Your task to perform on an android device: uninstall "PlayWell" Image 0: 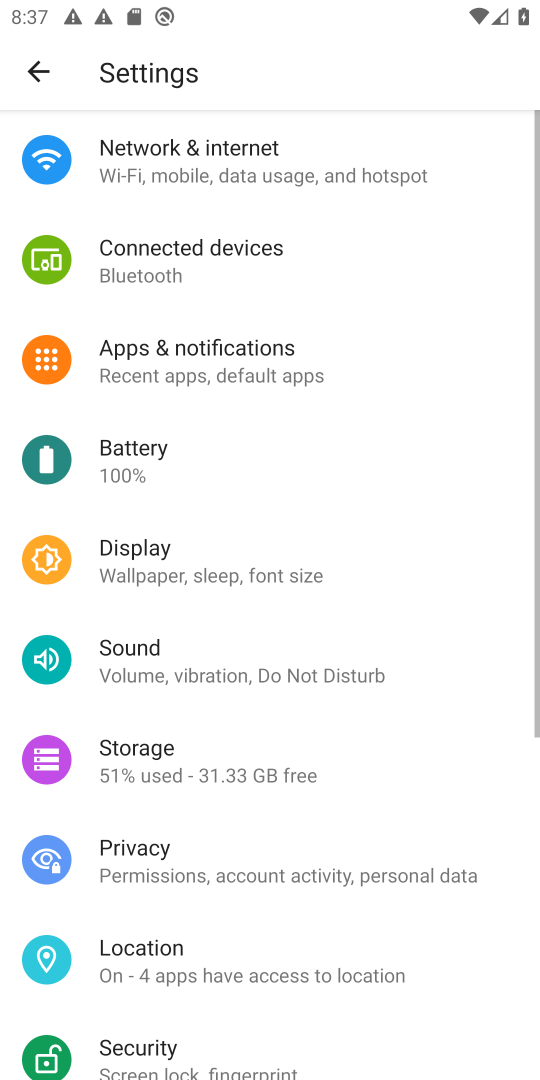
Step 0: press home button
Your task to perform on an android device: uninstall "PlayWell" Image 1: 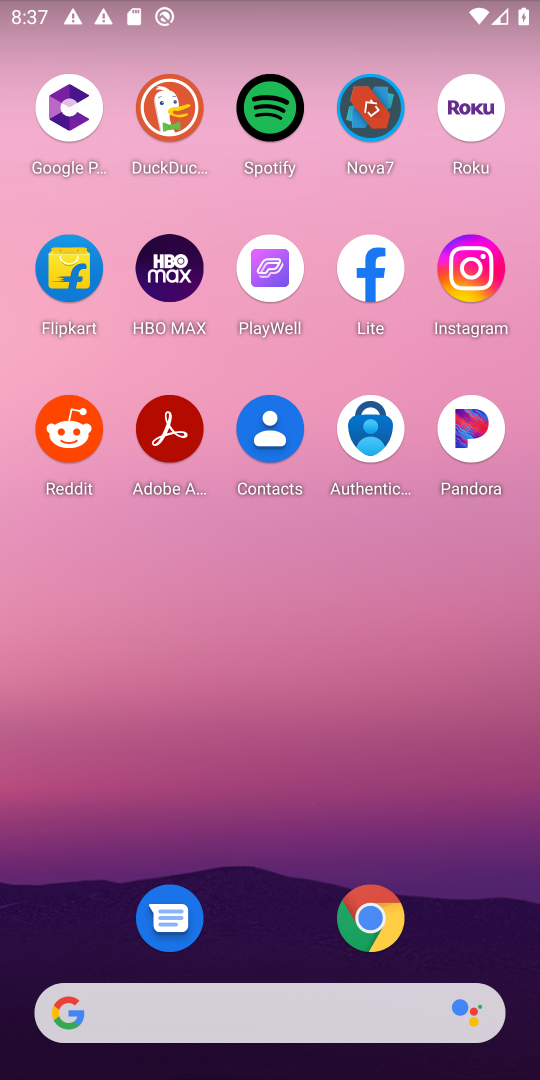
Step 1: press home button
Your task to perform on an android device: uninstall "PlayWell" Image 2: 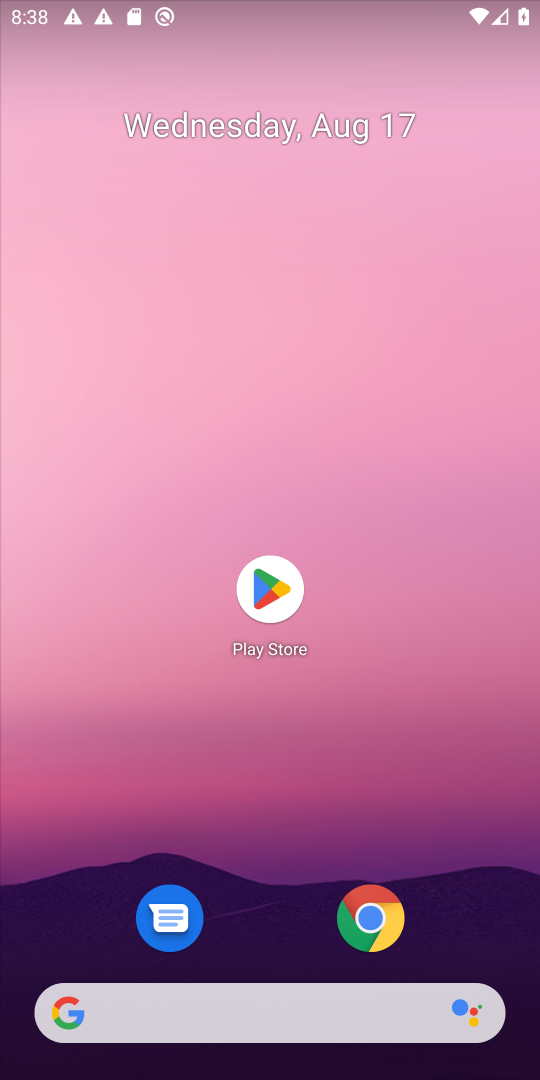
Step 2: click (271, 585)
Your task to perform on an android device: uninstall "PlayWell" Image 3: 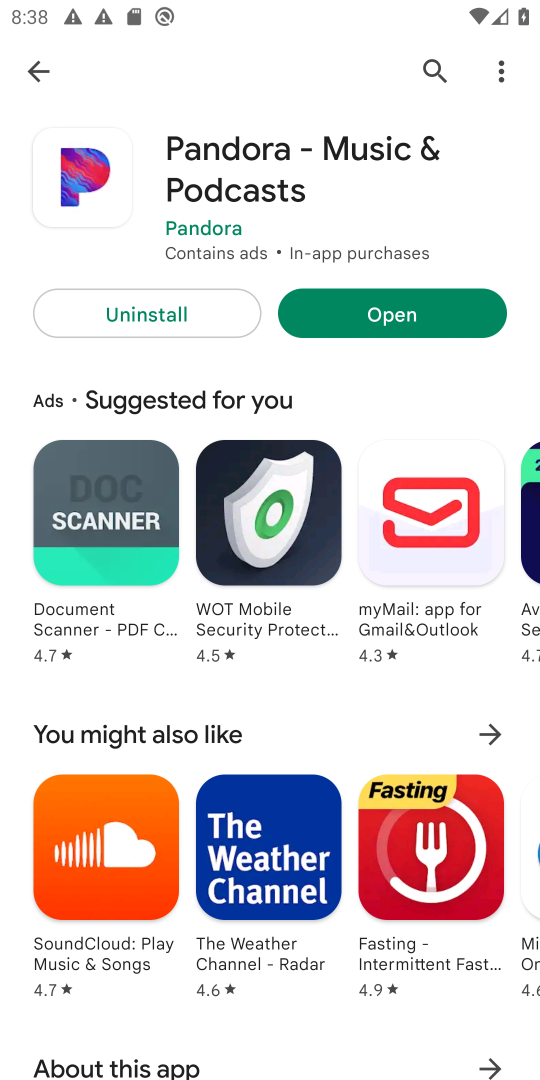
Step 3: click (427, 66)
Your task to perform on an android device: uninstall "PlayWell" Image 4: 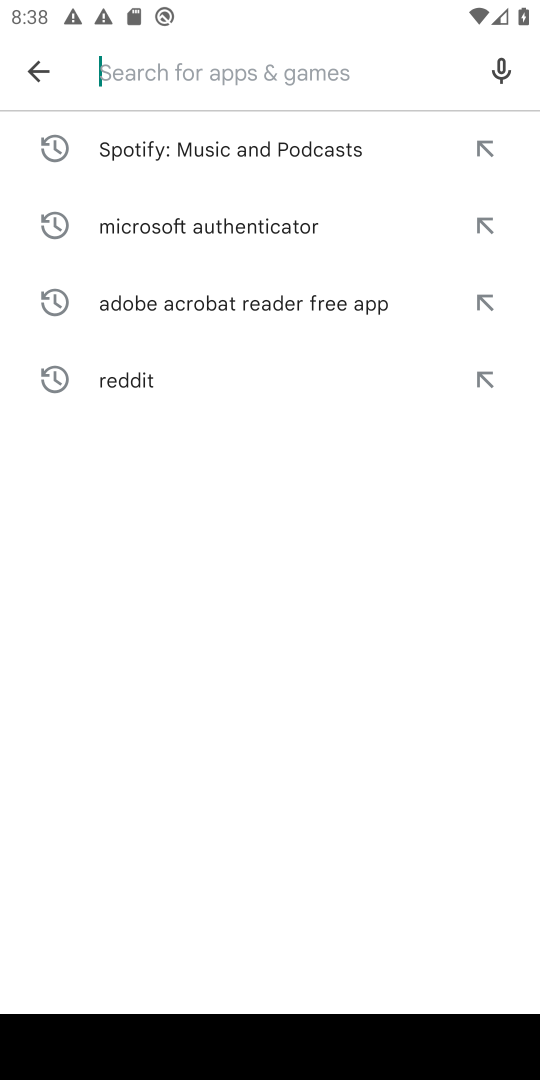
Step 4: type "PlayWell"
Your task to perform on an android device: uninstall "PlayWell" Image 5: 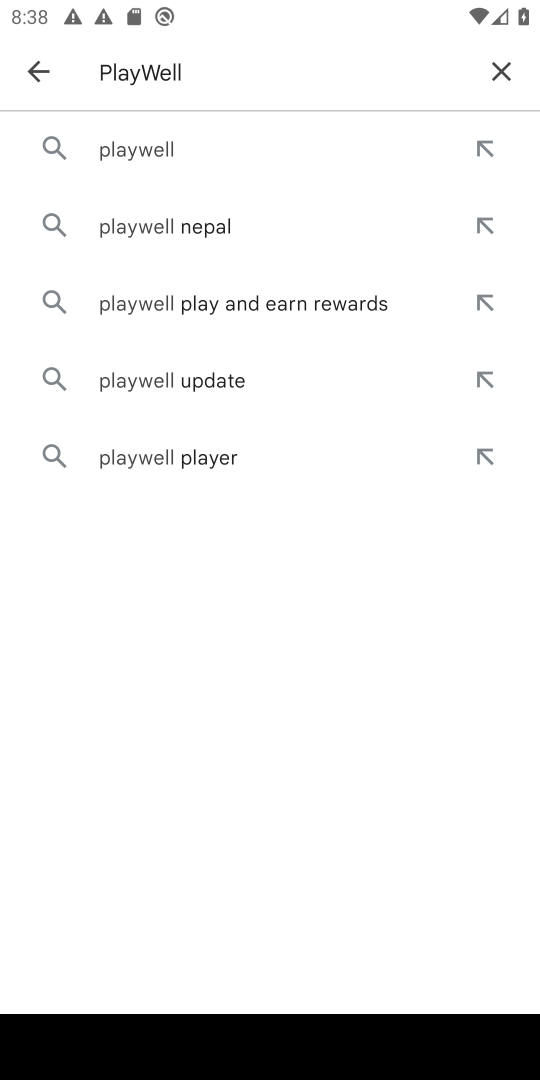
Step 5: click (161, 158)
Your task to perform on an android device: uninstall "PlayWell" Image 6: 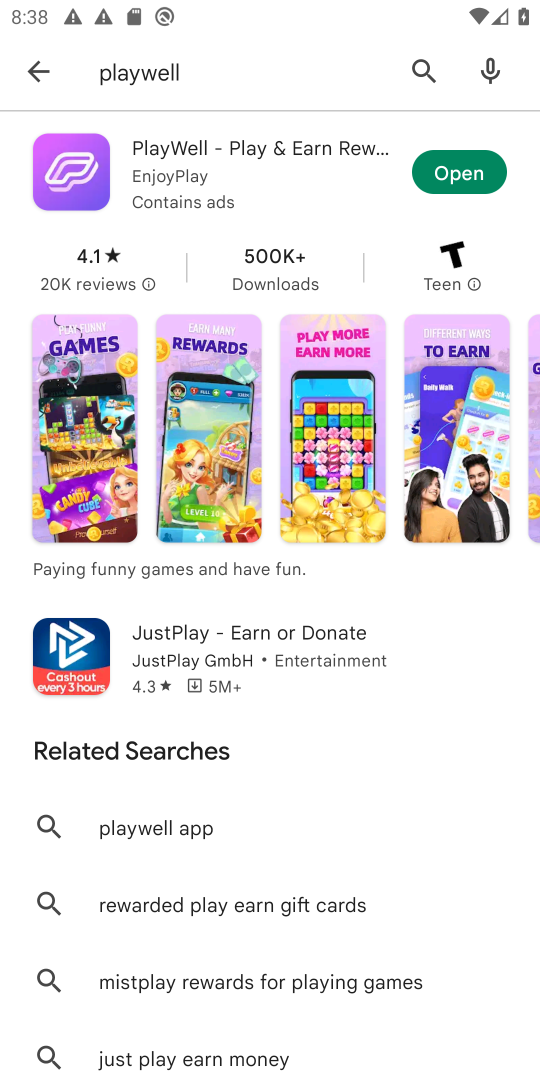
Step 6: click (141, 158)
Your task to perform on an android device: uninstall "PlayWell" Image 7: 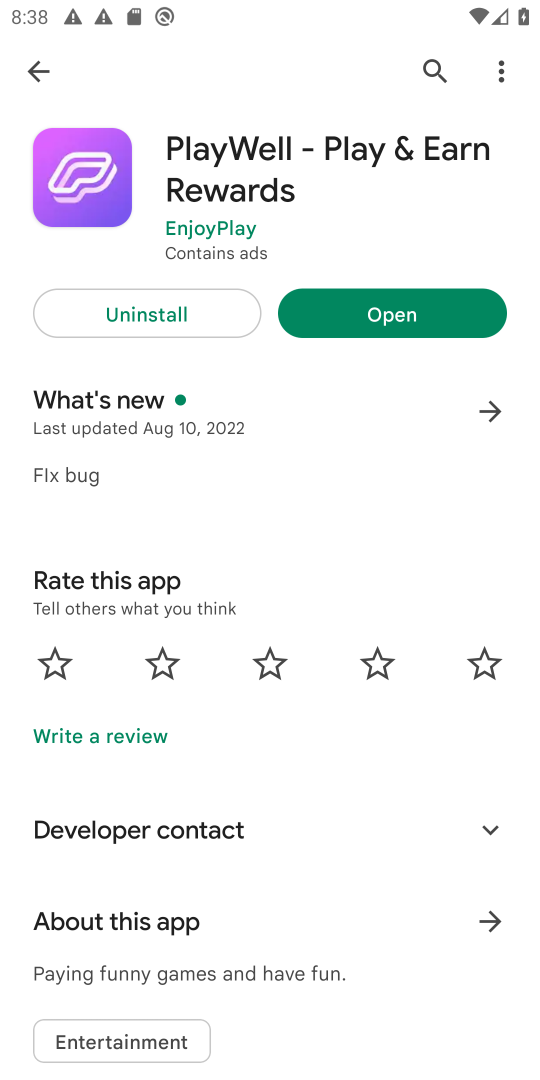
Step 7: click (156, 315)
Your task to perform on an android device: uninstall "PlayWell" Image 8: 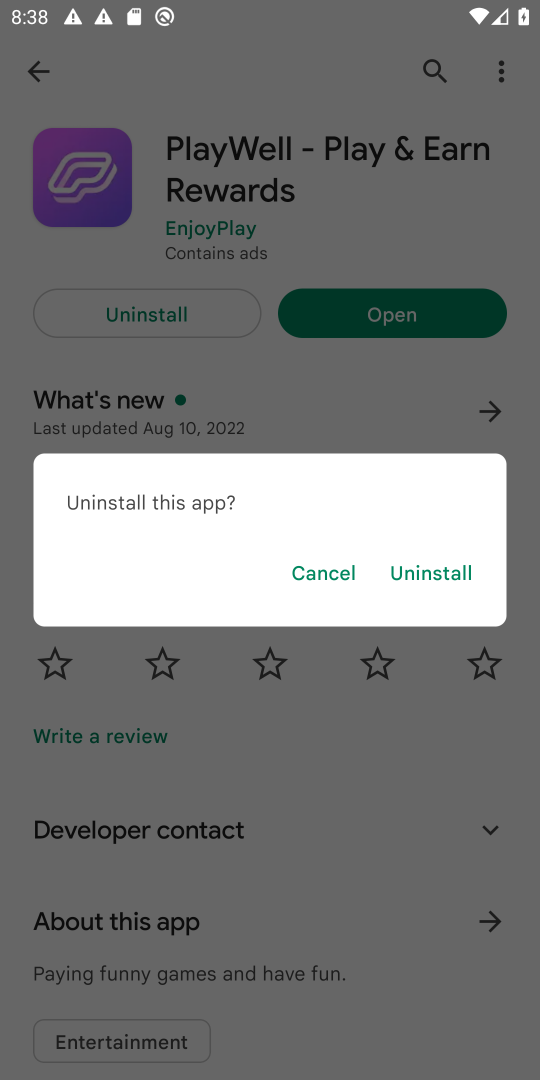
Step 8: click (442, 579)
Your task to perform on an android device: uninstall "PlayWell" Image 9: 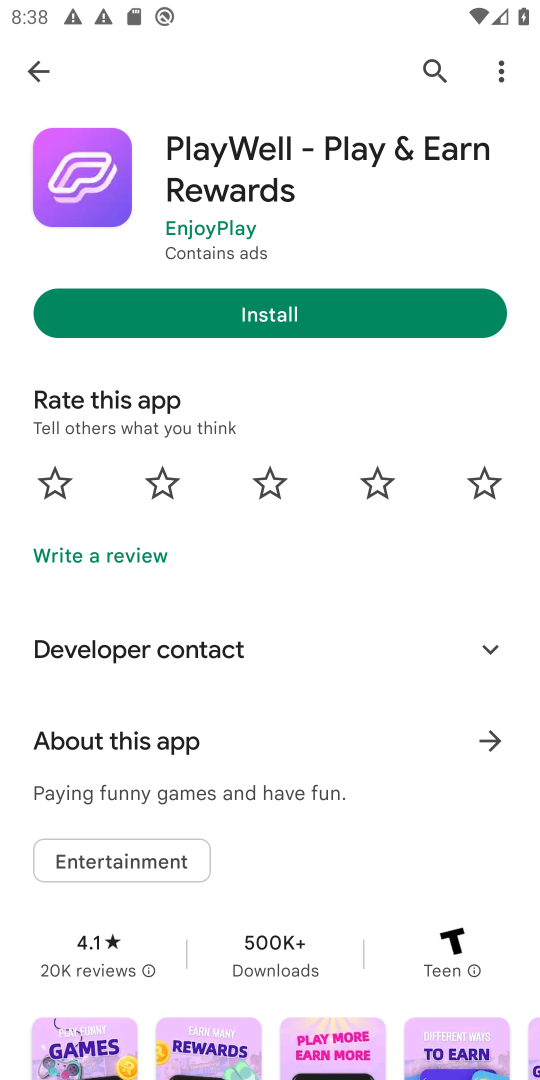
Step 9: task complete